Your task to perform on an android device: turn on javascript in the chrome app Image 0: 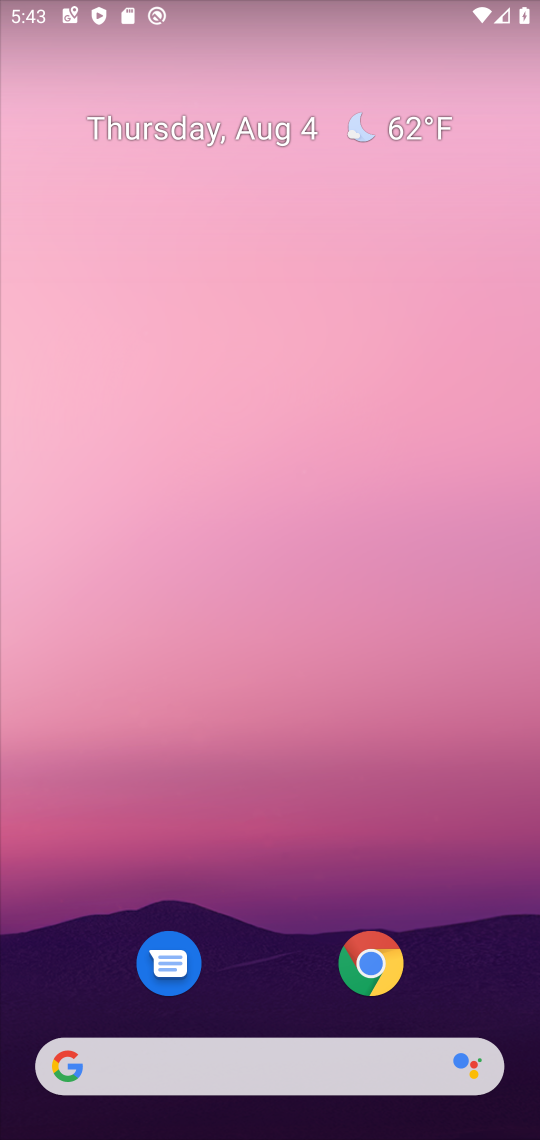
Step 0: press home button
Your task to perform on an android device: turn on javascript in the chrome app Image 1: 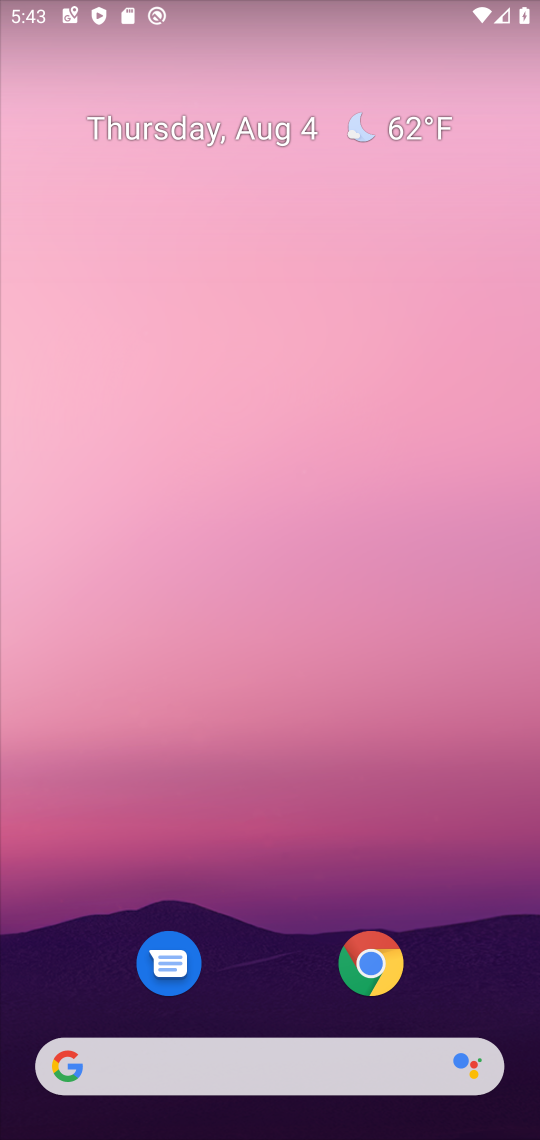
Step 1: click (371, 958)
Your task to perform on an android device: turn on javascript in the chrome app Image 2: 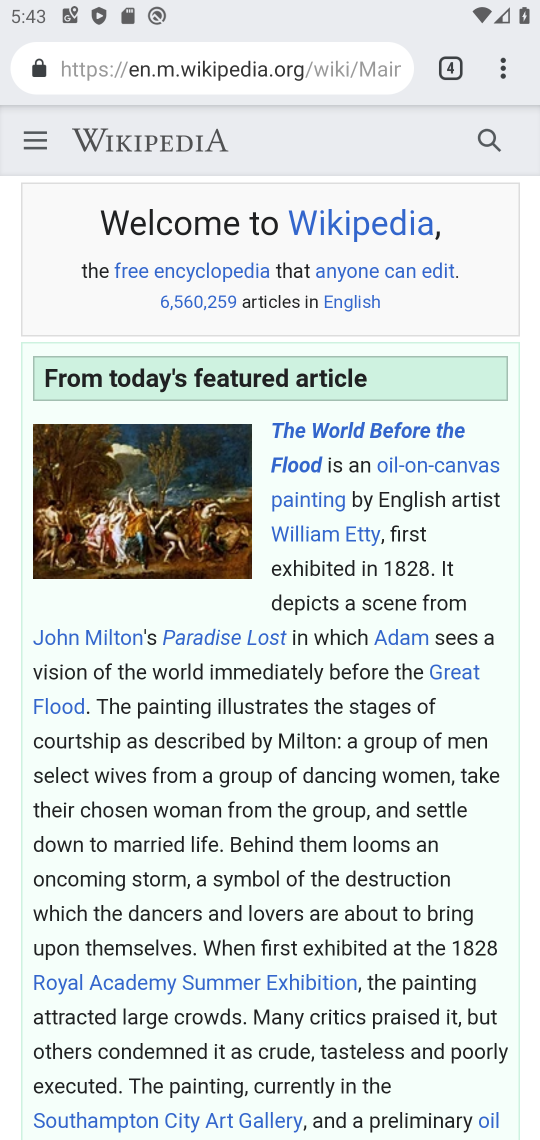
Step 2: click (512, 76)
Your task to perform on an android device: turn on javascript in the chrome app Image 3: 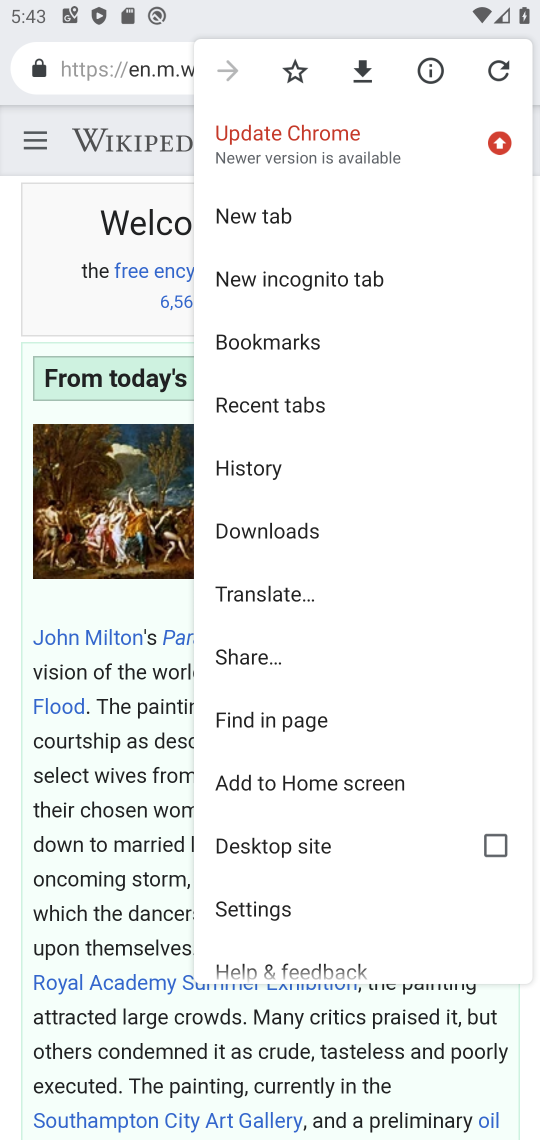
Step 3: click (263, 903)
Your task to perform on an android device: turn on javascript in the chrome app Image 4: 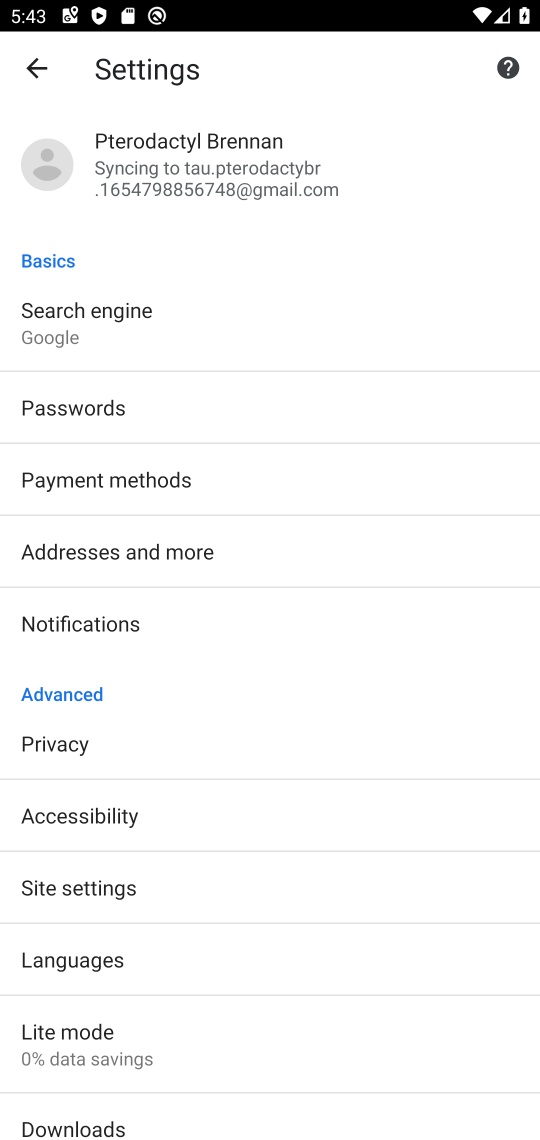
Step 4: click (108, 883)
Your task to perform on an android device: turn on javascript in the chrome app Image 5: 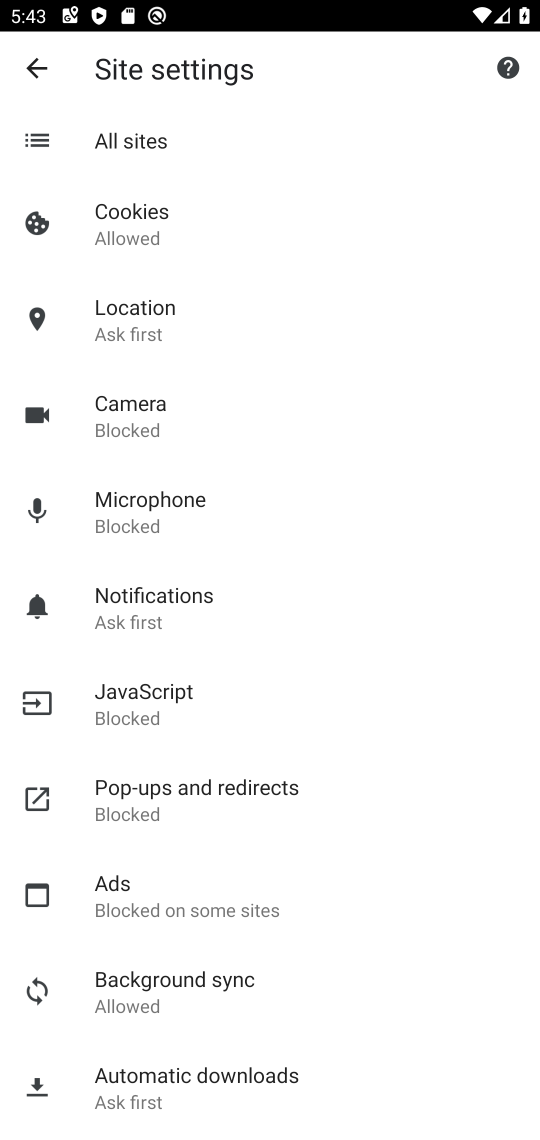
Step 5: click (122, 694)
Your task to perform on an android device: turn on javascript in the chrome app Image 6: 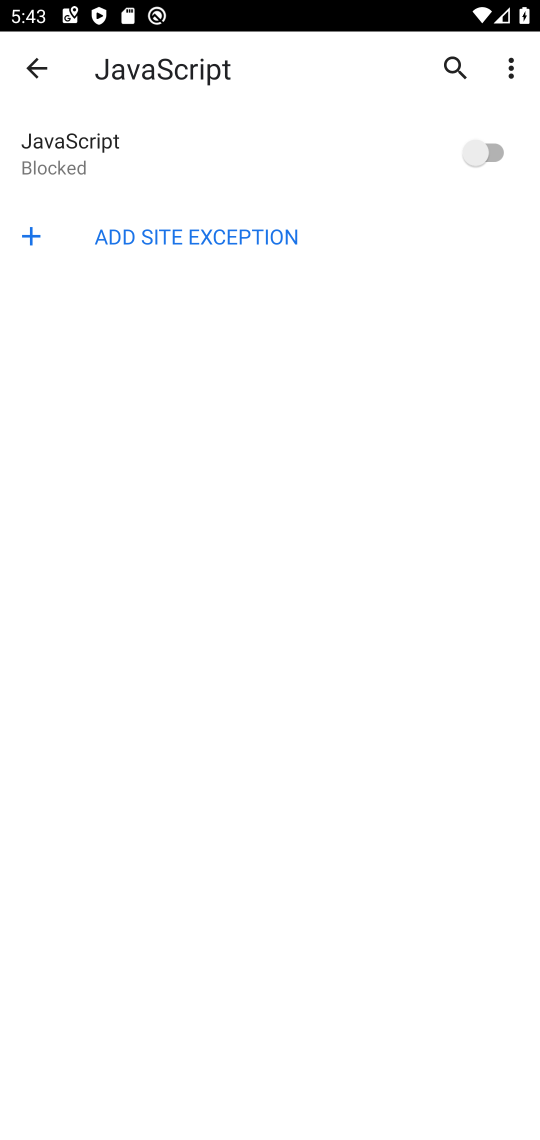
Step 6: click (469, 151)
Your task to perform on an android device: turn on javascript in the chrome app Image 7: 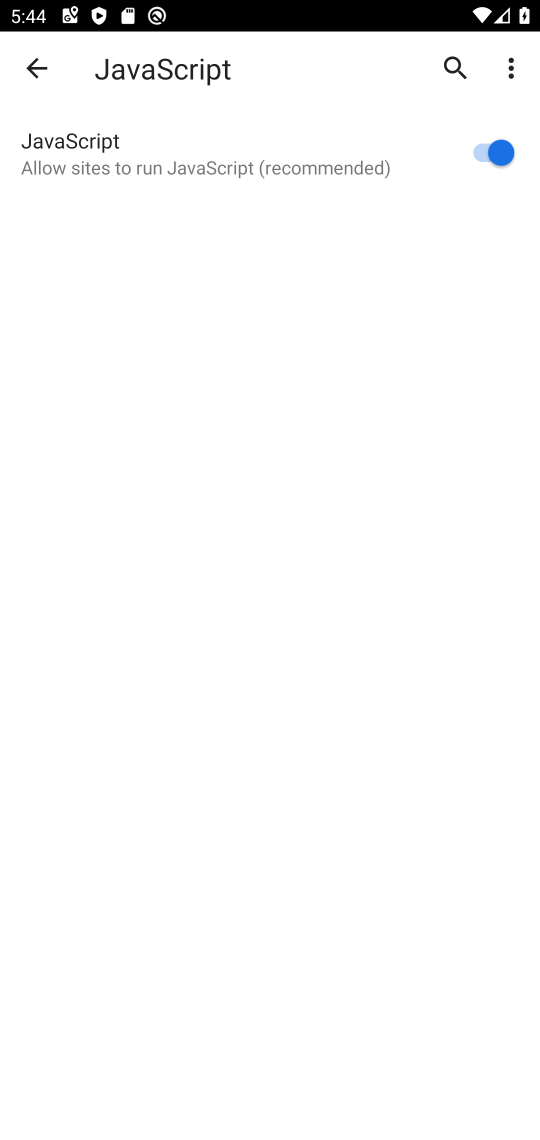
Step 7: task complete